Your task to perform on an android device: Search for pizza restaurants on Maps Image 0: 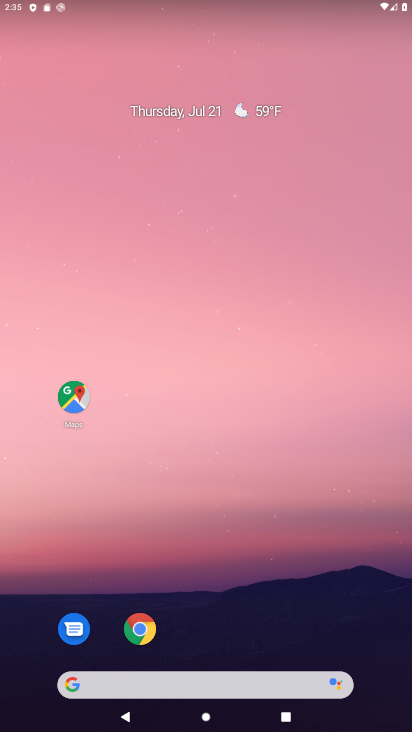
Step 0: drag from (222, 724) to (221, 688)
Your task to perform on an android device: Search for pizza restaurants on Maps Image 1: 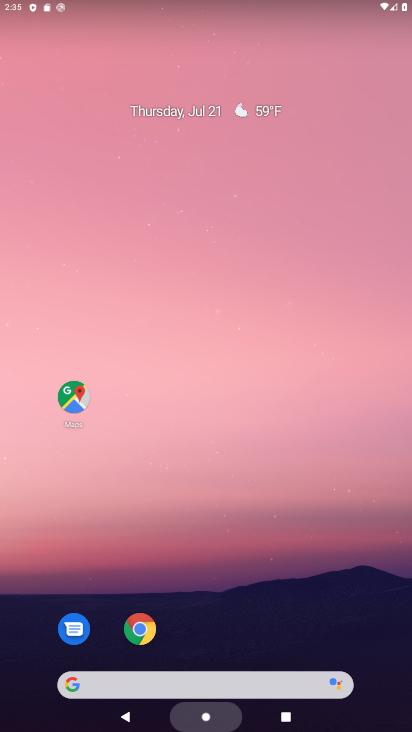
Step 1: drag from (211, 264) to (208, 104)
Your task to perform on an android device: Search for pizza restaurants on Maps Image 2: 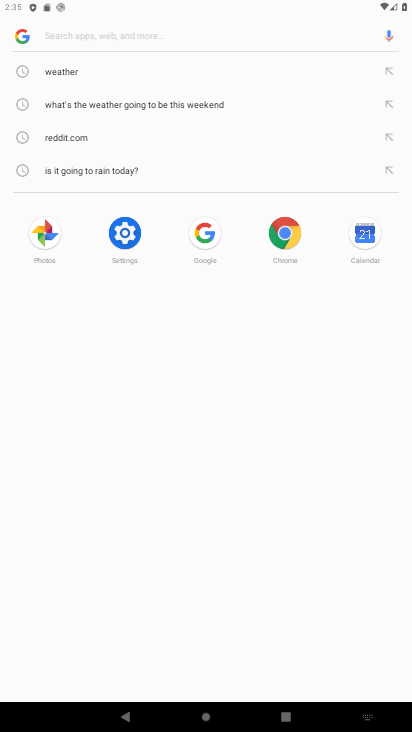
Step 2: press home button
Your task to perform on an android device: Search for pizza restaurants on Maps Image 3: 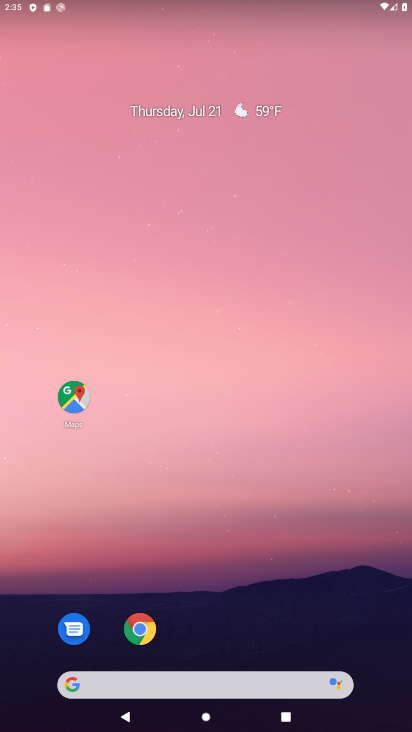
Step 3: drag from (226, 722) to (228, 233)
Your task to perform on an android device: Search for pizza restaurants on Maps Image 4: 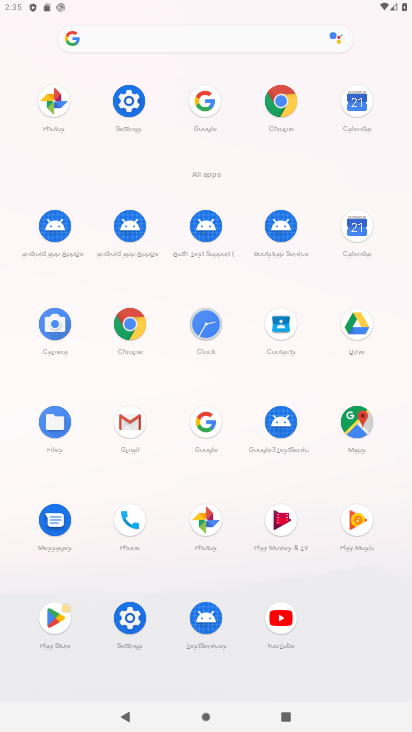
Step 4: click (355, 423)
Your task to perform on an android device: Search for pizza restaurants on Maps Image 5: 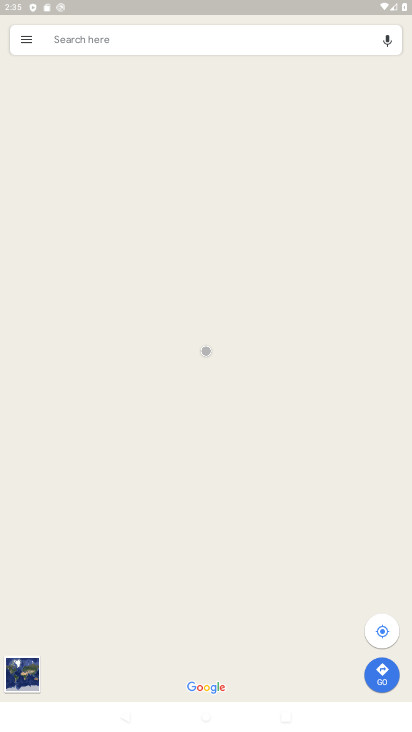
Step 5: click (188, 37)
Your task to perform on an android device: Search for pizza restaurants on Maps Image 6: 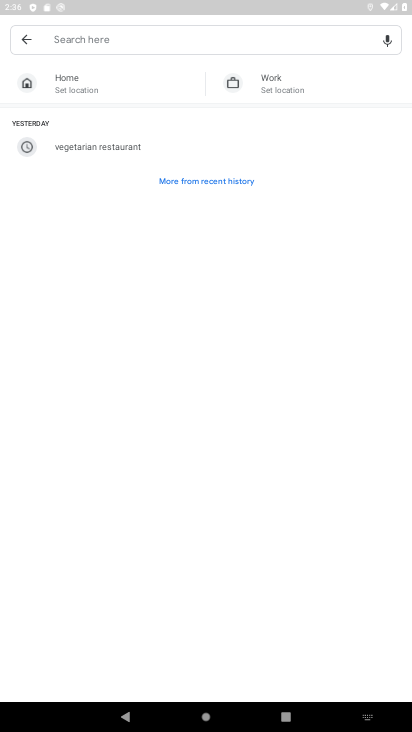
Step 6: type "pizza restaurants"
Your task to perform on an android device: Search for pizza restaurants on Maps Image 7: 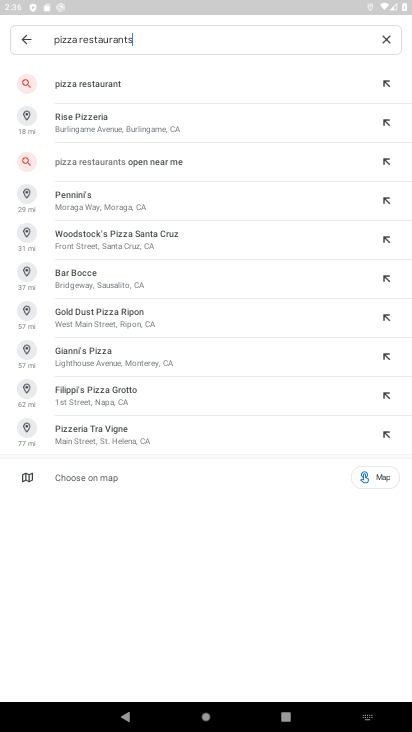
Step 7: click (77, 84)
Your task to perform on an android device: Search for pizza restaurants on Maps Image 8: 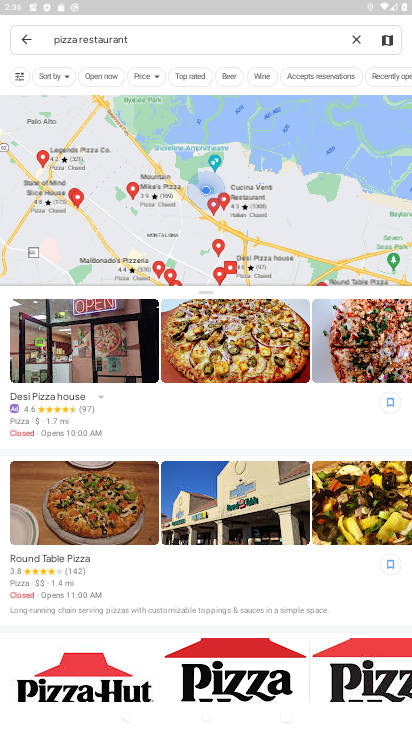
Step 8: task complete